Your task to perform on an android device: Open Youtube and go to the subscriptions tab Image 0: 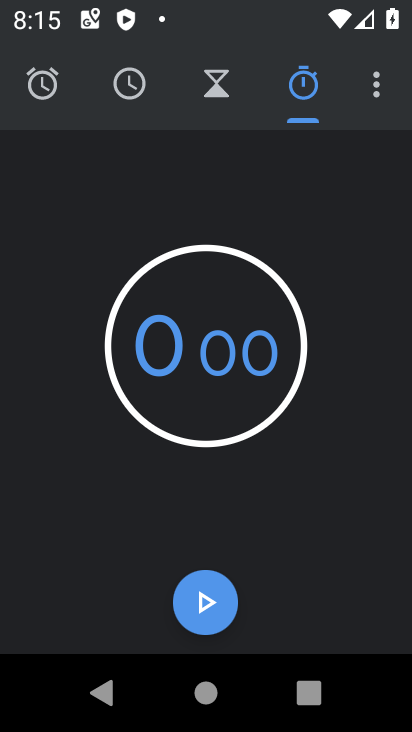
Step 0: press home button
Your task to perform on an android device: Open Youtube and go to the subscriptions tab Image 1: 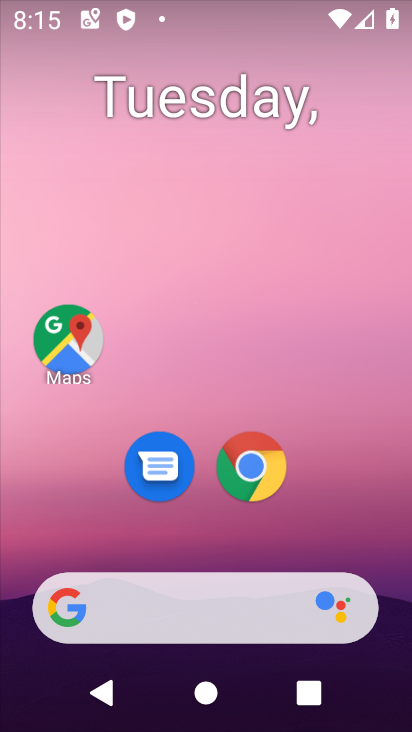
Step 1: drag from (356, 546) to (340, 134)
Your task to perform on an android device: Open Youtube and go to the subscriptions tab Image 2: 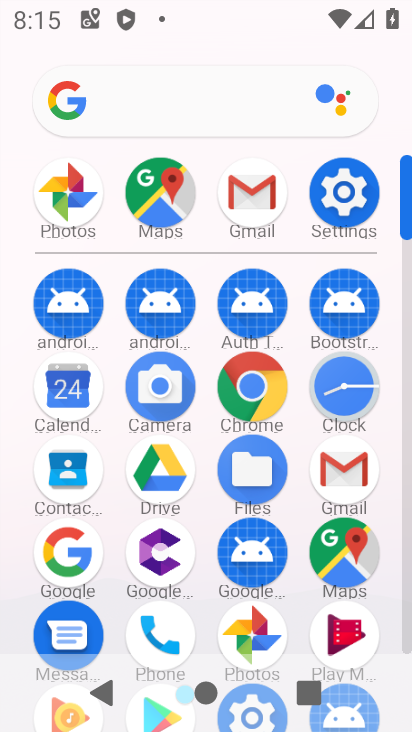
Step 2: click (406, 648)
Your task to perform on an android device: Open Youtube and go to the subscriptions tab Image 3: 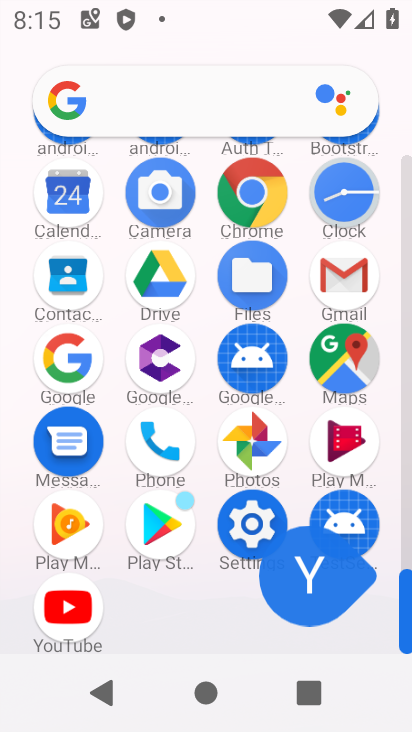
Step 3: click (406, 648)
Your task to perform on an android device: Open Youtube and go to the subscriptions tab Image 4: 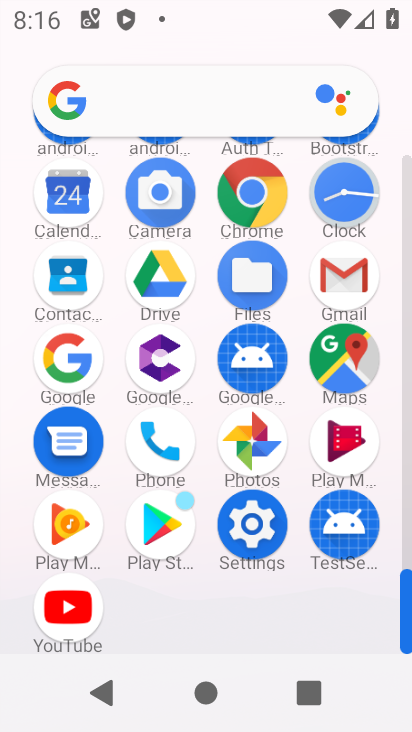
Step 4: click (39, 605)
Your task to perform on an android device: Open Youtube and go to the subscriptions tab Image 5: 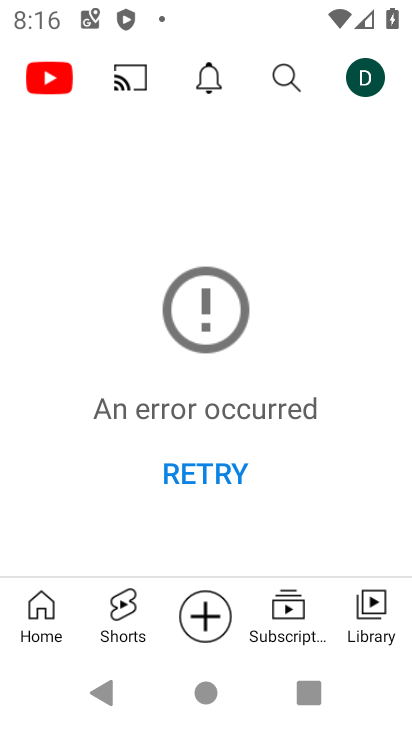
Step 5: click (288, 623)
Your task to perform on an android device: Open Youtube and go to the subscriptions tab Image 6: 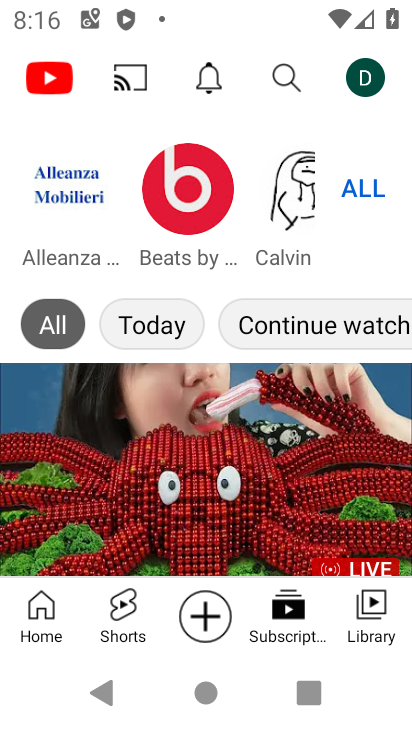
Step 6: task complete